Your task to perform on an android device: Do I have any events tomorrow? Image 0: 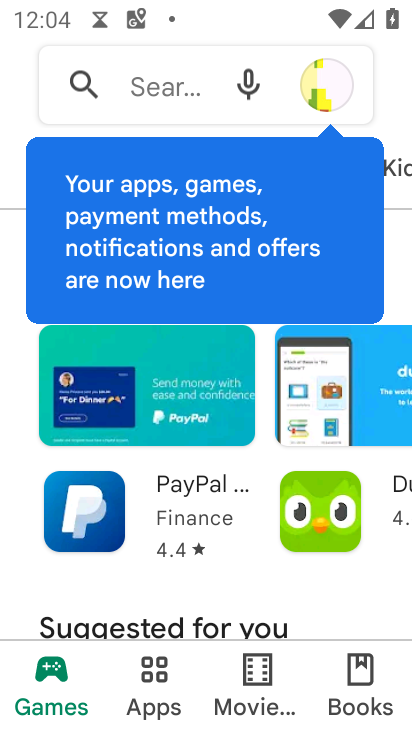
Step 0: press home button
Your task to perform on an android device: Do I have any events tomorrow? Image 1: 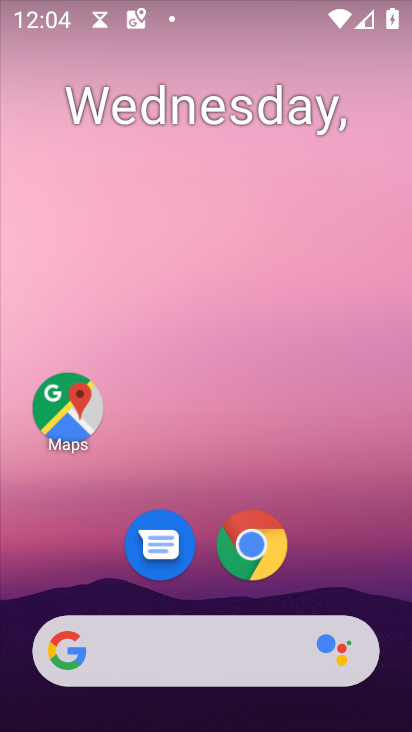
Step 1: drag from (283, 185) to (236, 0)
Your task to perform on an android device: Do I have any events tomorrow? Image 2: 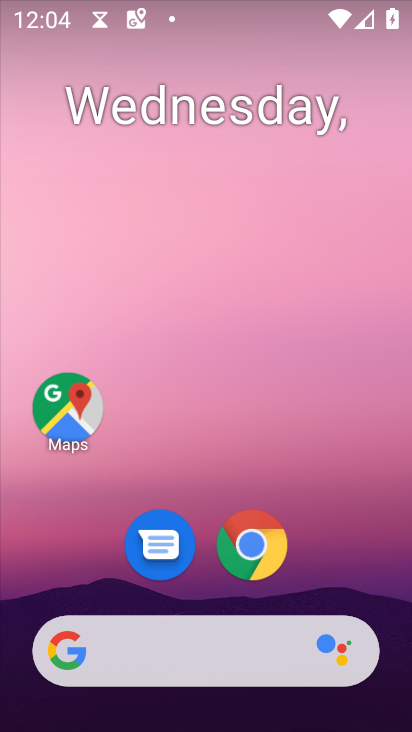
Step 2: drag from (306, 427) to (332, 26)
Your task to perform on an android device: Do I have any events tomorrow? Image 3: 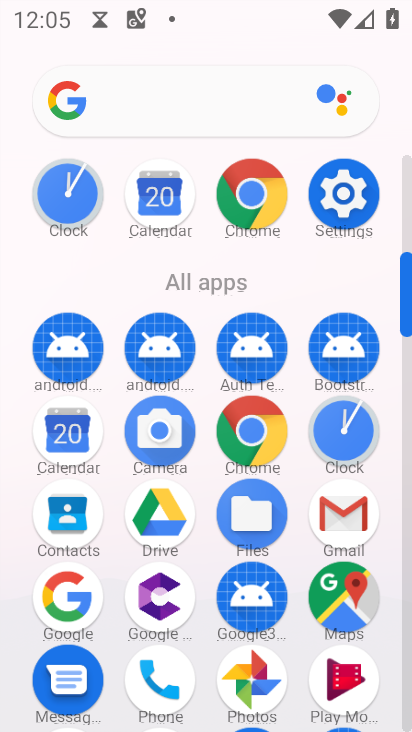
Step 3: click (76, 439)
Your task to perform on an android device: Do I have any events tomorrow? Image 4: 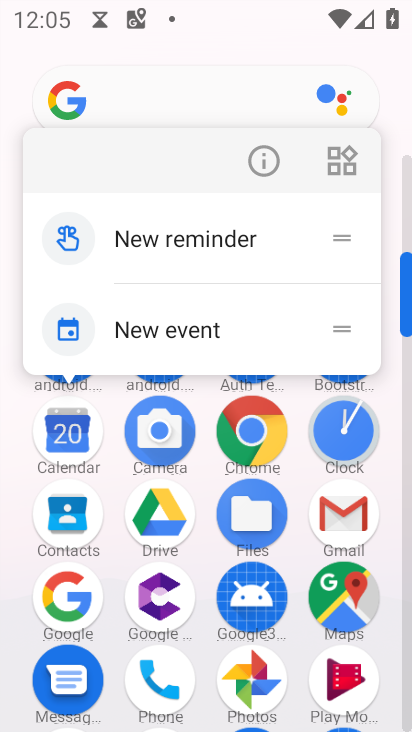
Step 4: click (76, 439)
Your task to perform on an android device: Do I have any events tomorrow? Image 5: 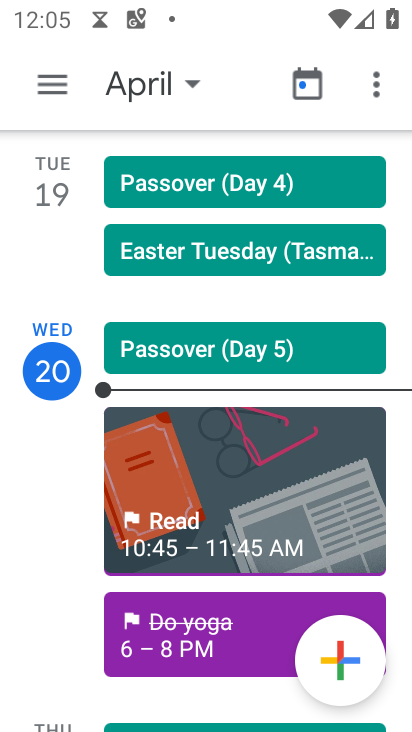
Step 5: click (161, 95)
Your task to perform on an android device: Do I have any events tomorrow? Image 6: 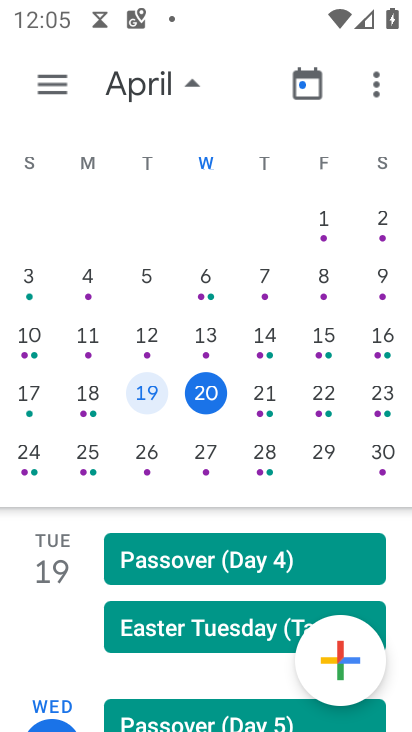
Step 6: click (263, 389)
Your task to perform on an android device: Do I have any events tomorrow? Image 7: 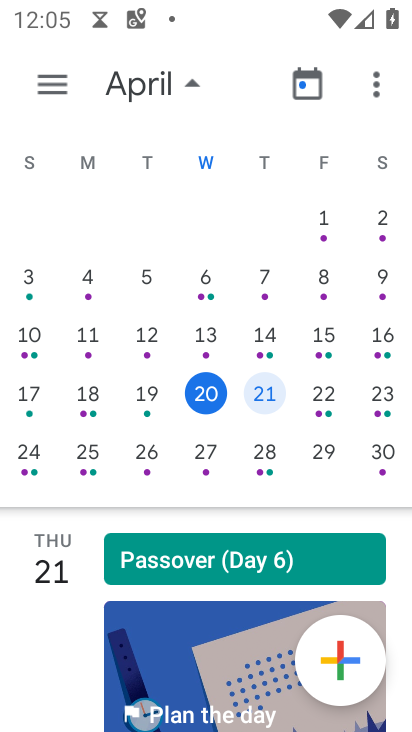
Step 7: click (258, 398)
Your task to perform on an android device: Do I have any events tomorrow? Image 8: 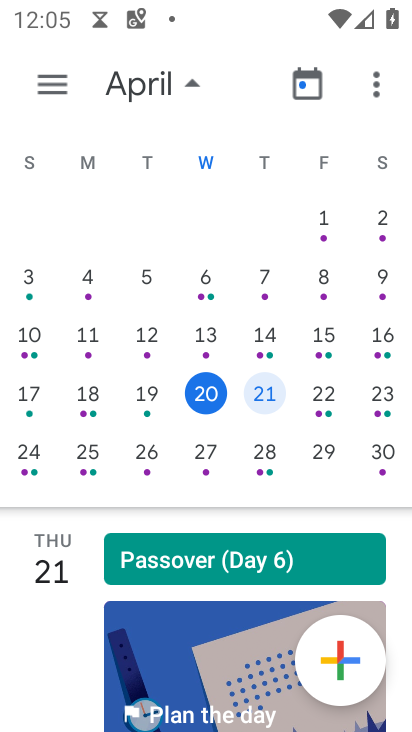
Step 8: click (261, 392)
Your task to perform on an android device: Do I have any events tomorrow? Image 9: 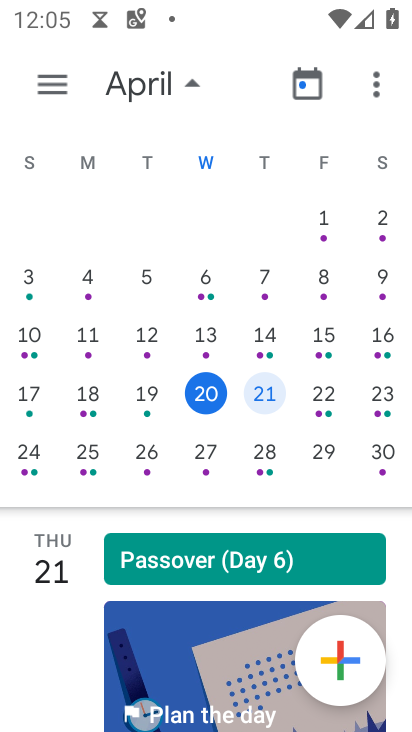
Step 9: task complete